Your task to perform on an android device: Open the calendar app, open the side menu, and click the "Day" option Image 0: 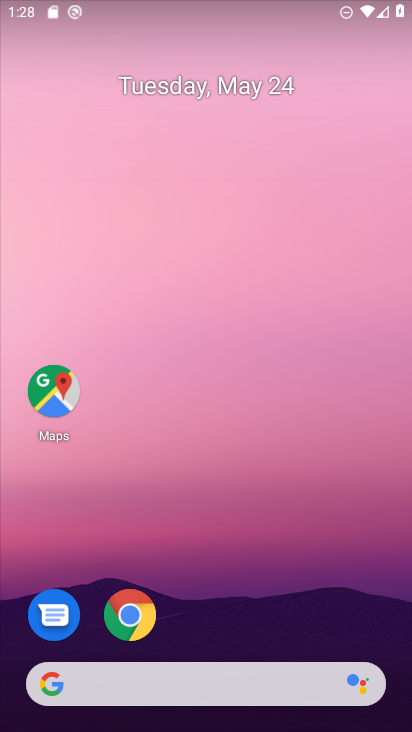
Step 0: drag from (238, 617) to (335, 86)
Your task to perform on an android device: Open the calendar app, open the side menu, and click the "Day" option Image 1: 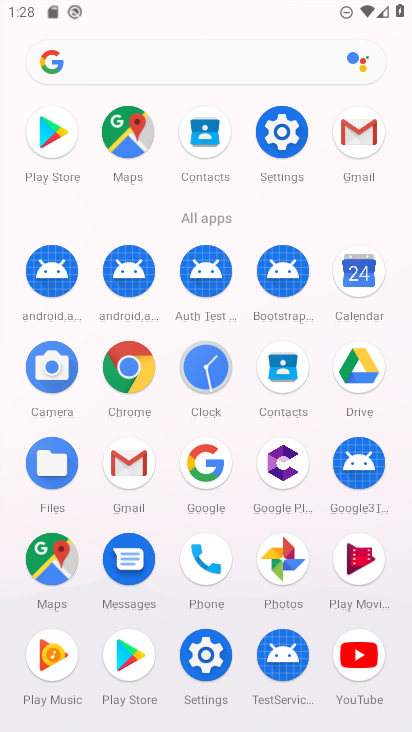
Step 1: click (358, 272)
Your task to perform on an android device: Open the calendar app, open the side menu, and click the "Day" option Image 2: 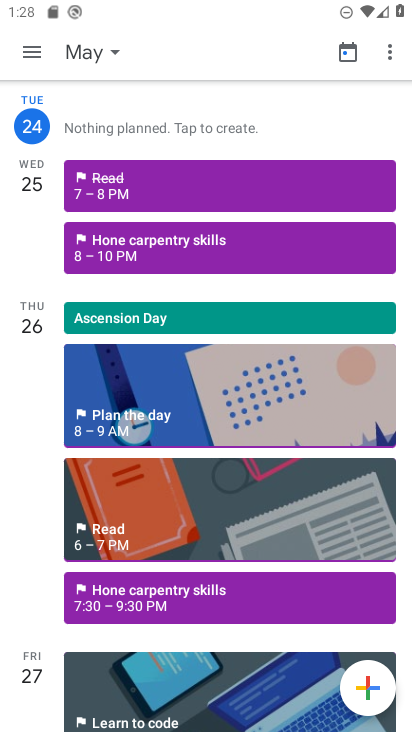
Step 2: click (43, 52)
Your task to perform on an android device: Open the calendar app, open the side menu, and click the "Day" option Image 3: 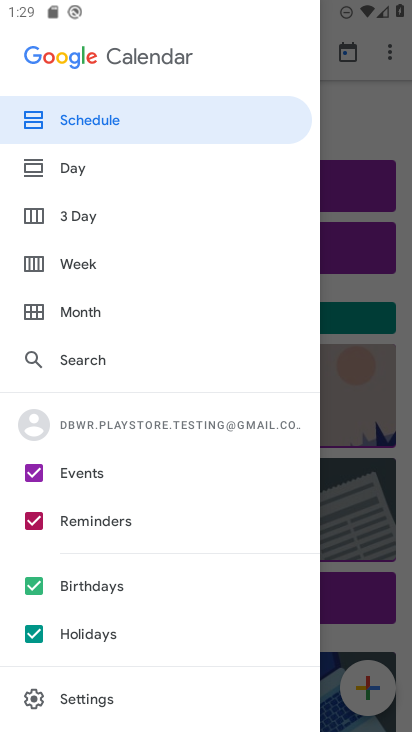
Step 3: click (86, 163)
Your task to perform on an android device: Open the calendar app, open the side menu, and click the "Day" option Image 4: 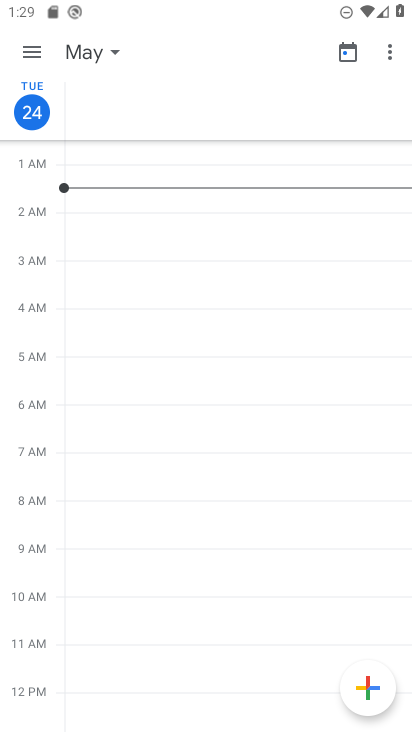
Step 4: task complete